Your task to perform on an android device: Go to privacy settings Image 0: 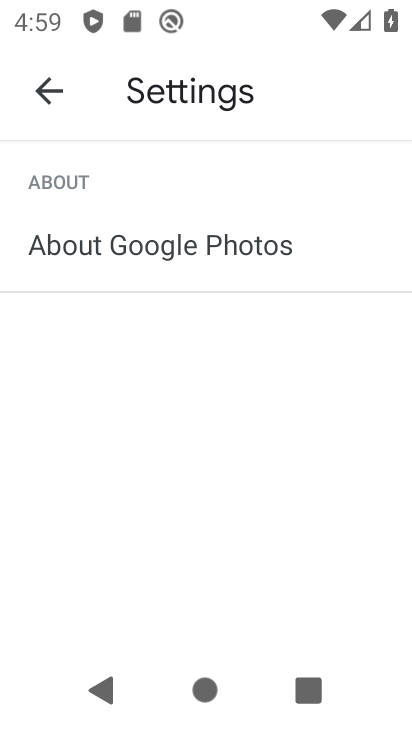
Step 0: press home button
Your task to perform on an android device: Go to privacy settings Image 1: 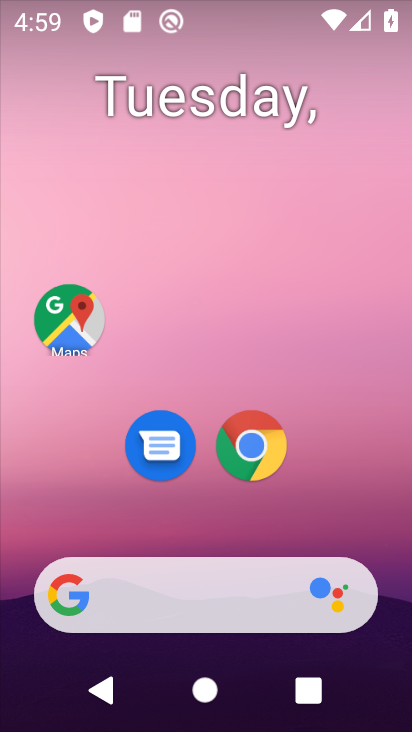
Step 1: drag from (284, 502) to (317, 70)
Your task to perform on an android device: Go to privacy settings Image 2: 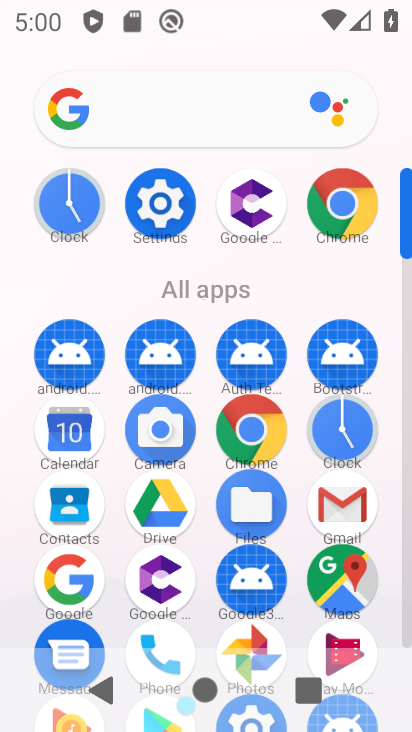
Step 2: click (156, 203)
Your task to perform on an android device: Go to privacy settings Image 3: 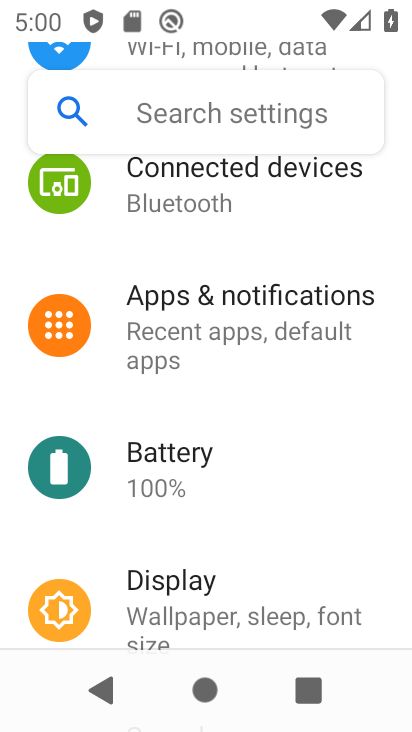
Step 3: drag from (232, 543) to (258, 280)
Your task to perform on an android device: Go to privacy settings Image 4: 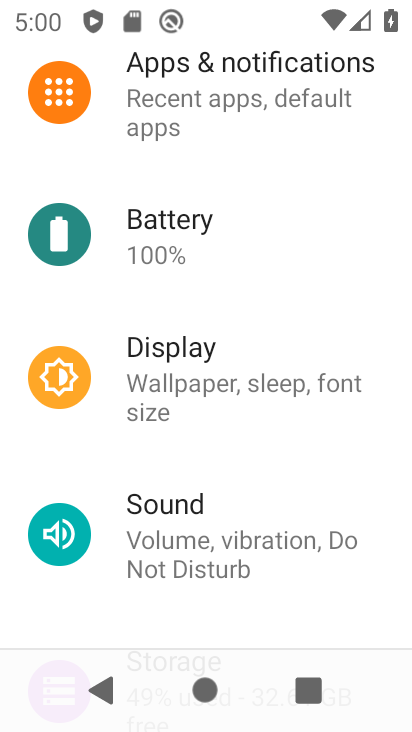
Step 4: drag from (249, 521) to (298, 246)
Your task to perform on an android device: Go to privacy settings Image 5: 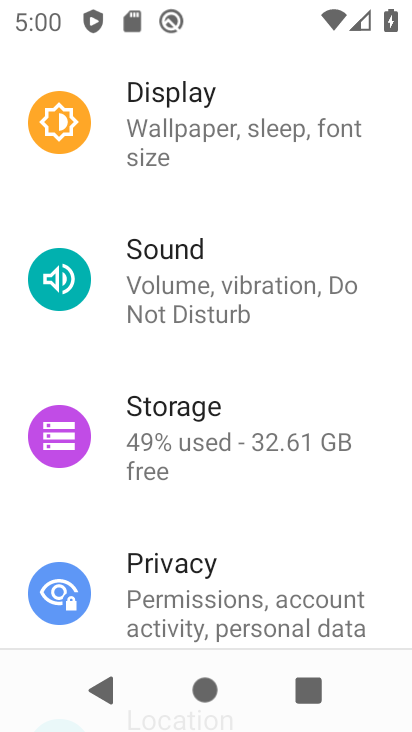
Step 5: click (163, 590)
Your task to perform on an android device: Go to privacy settings Image 6: 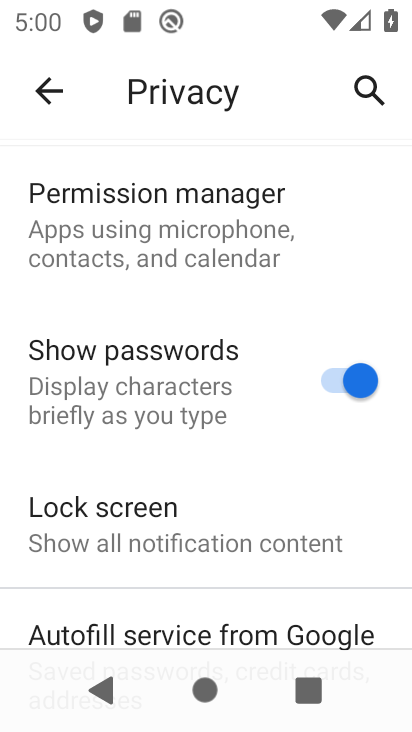
Step 6: task complete